Your task to perform on an android device: Open Chrome and go to the settings page Image 0: 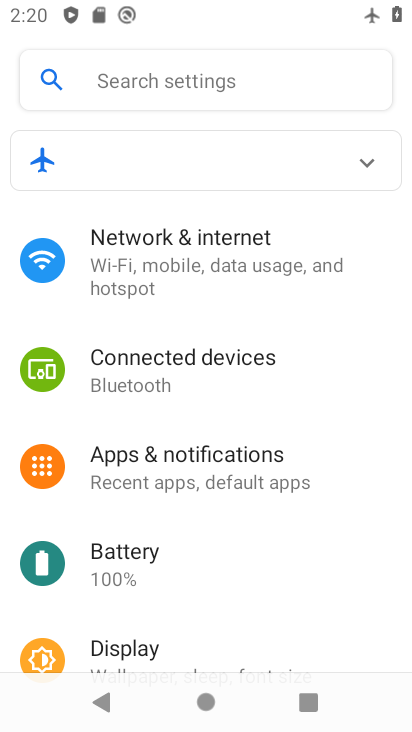
Step 0: press home button
Your task to perform on an android device: Open Chrome and go to the settings page Image 1: 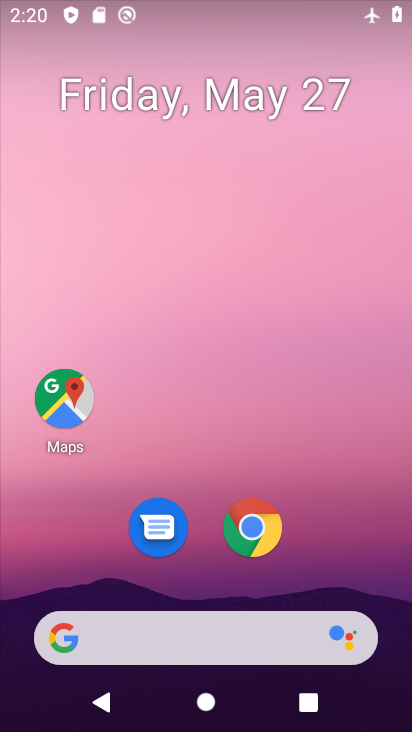
Step 1: click (271, 512)
Your task to perform on an android device: Open Chrome and go to the settings page Image 2: 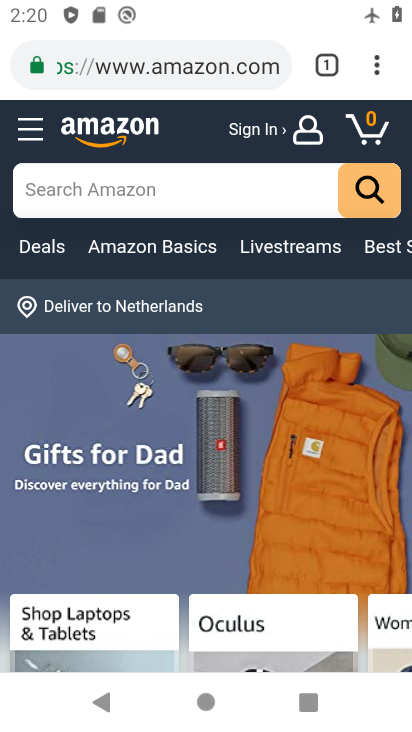
Step 2: click (368, 58)
Your task to perform on an android device: Open Chrome and go to the settings page Image 3: 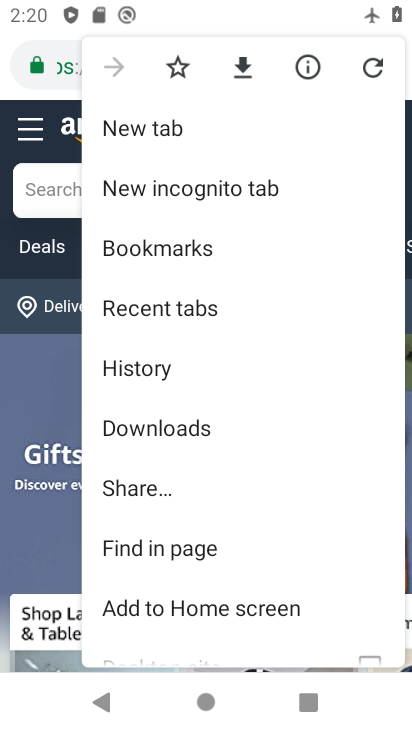
Step 3: drag from (295, 581) to (308, 159)
Your task to perform on an android device: Open Chrome and go to the settings page Image 4: 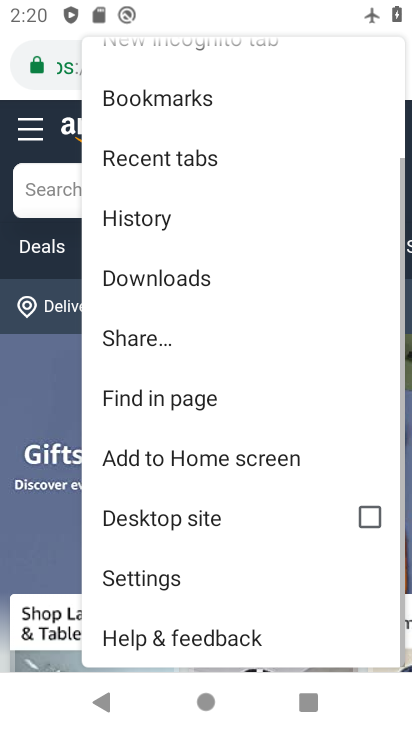
Step 4: click (180, 592)
Your task to perform on an android device: Open Chrome and go to the settings page Image 5: 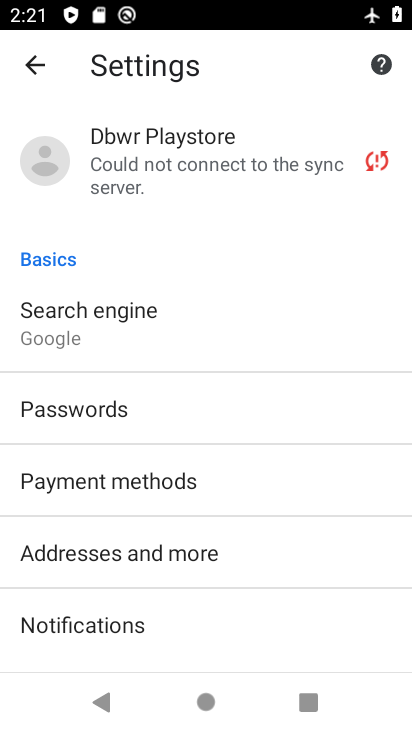
Step 5: task complete